Your task to perform on an android device: Search for vegetarian restaurants on Maps Image 0: 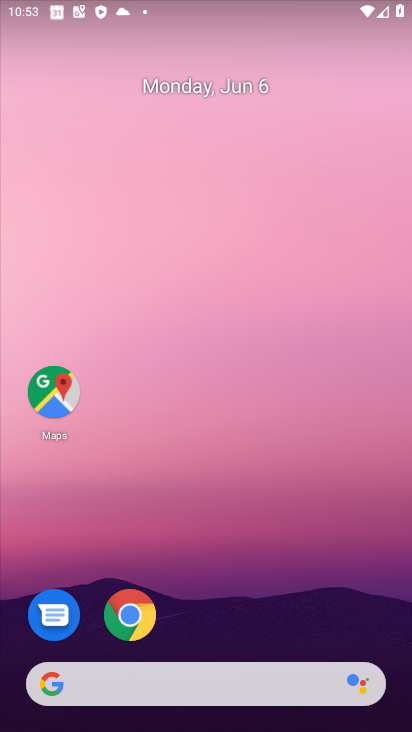
Step 0: click (233, 640)
Your task to perform on an android device: Search for vegetarian restaurants on Maps Image 1: 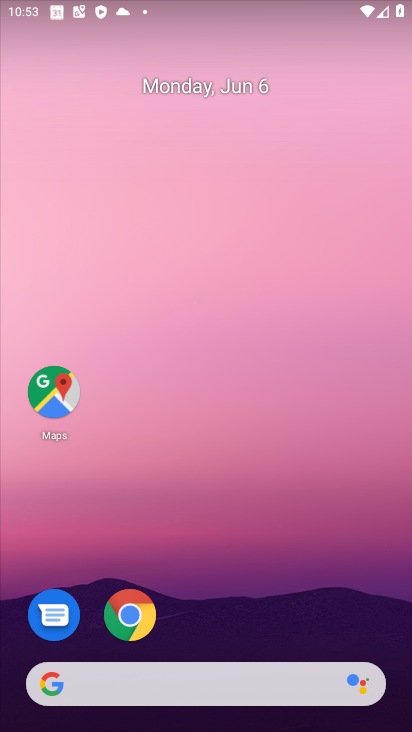
Step 1: click (59, 402)
Your task to perform on an android device: Search for vegetarian restaurants on Maps Image 2: 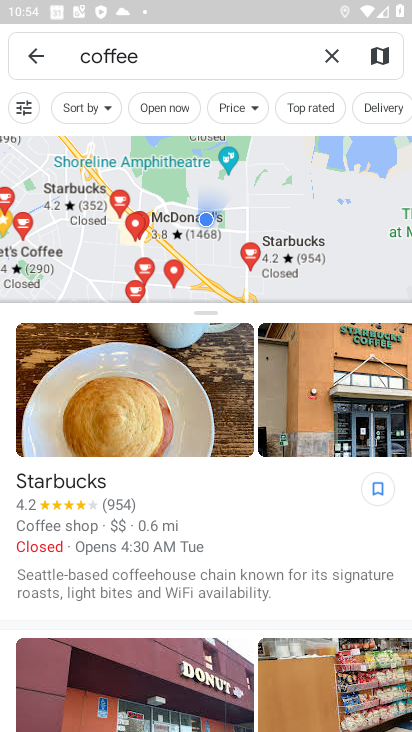
Step 2: click (331, 62)
Your task to perform on an android device: Search for vegetarian restaurants on Maps Image 3: 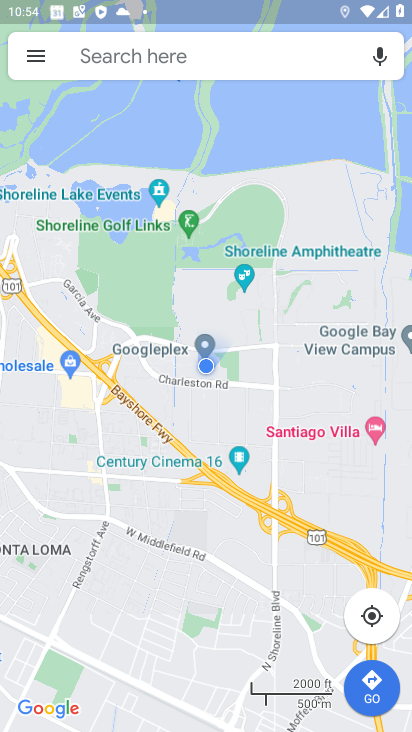
Step 3: click (256, 60)
Your task to perform on an android device: Search for vegetarian restaurants on Maps Image 4: 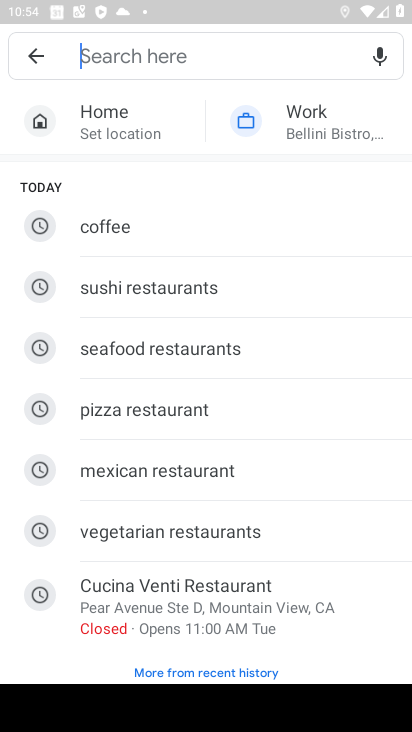
Step 4: click (152, 521)
Your task to perform on an android device: Search for vegetarian restaurants on Maps Image 5: 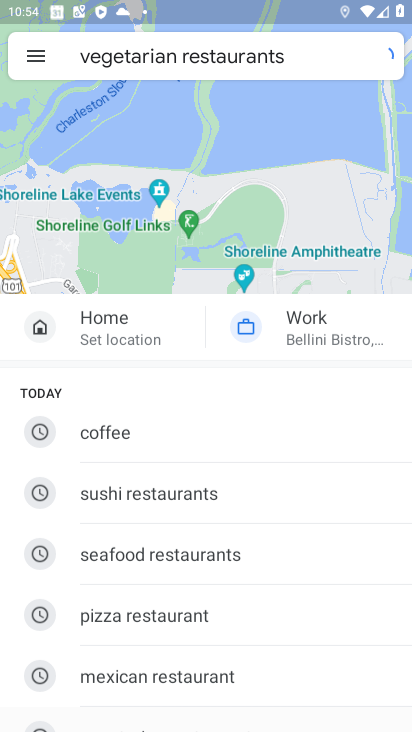
Step 5: task complete